Your task to perform on an android device: Open internet settings Image 0: 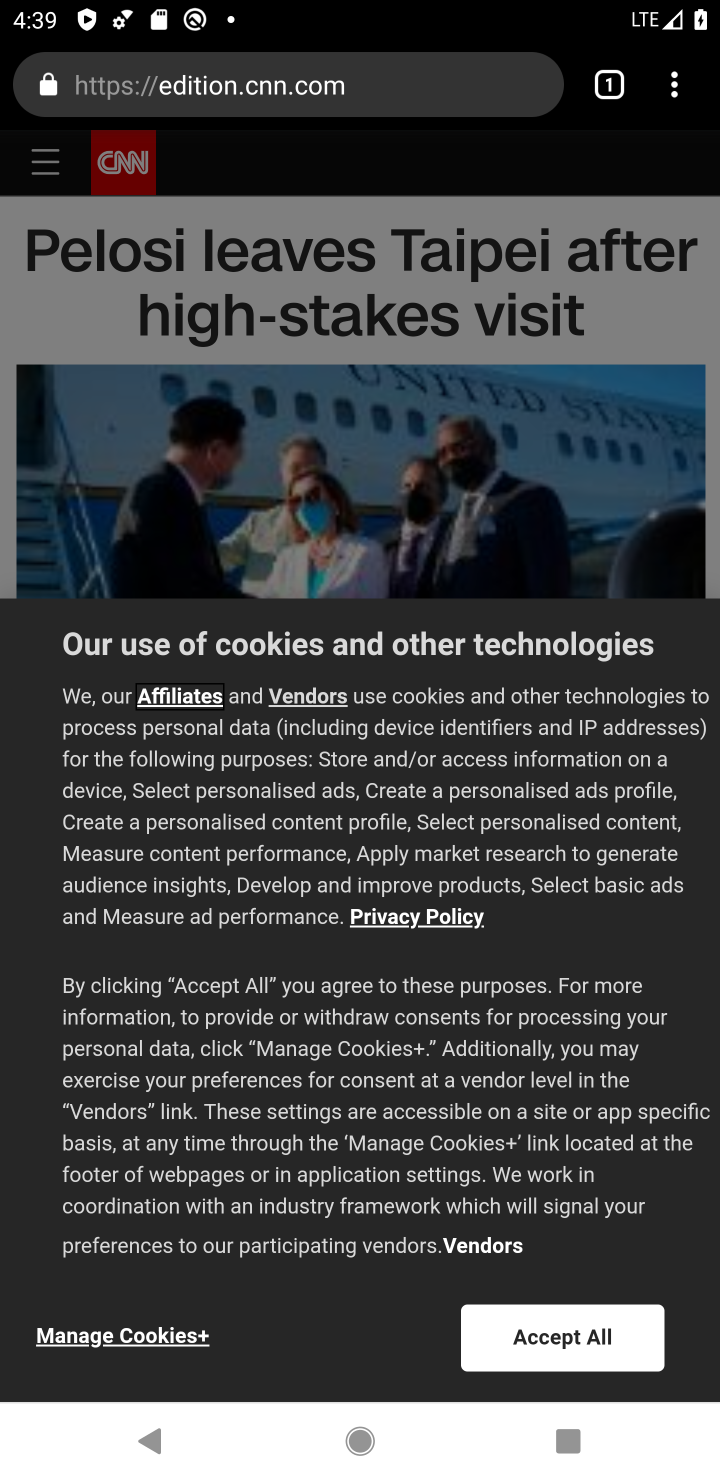
Step 0: press back button
Your task to perform on an android device: Open internet settings Image 1: 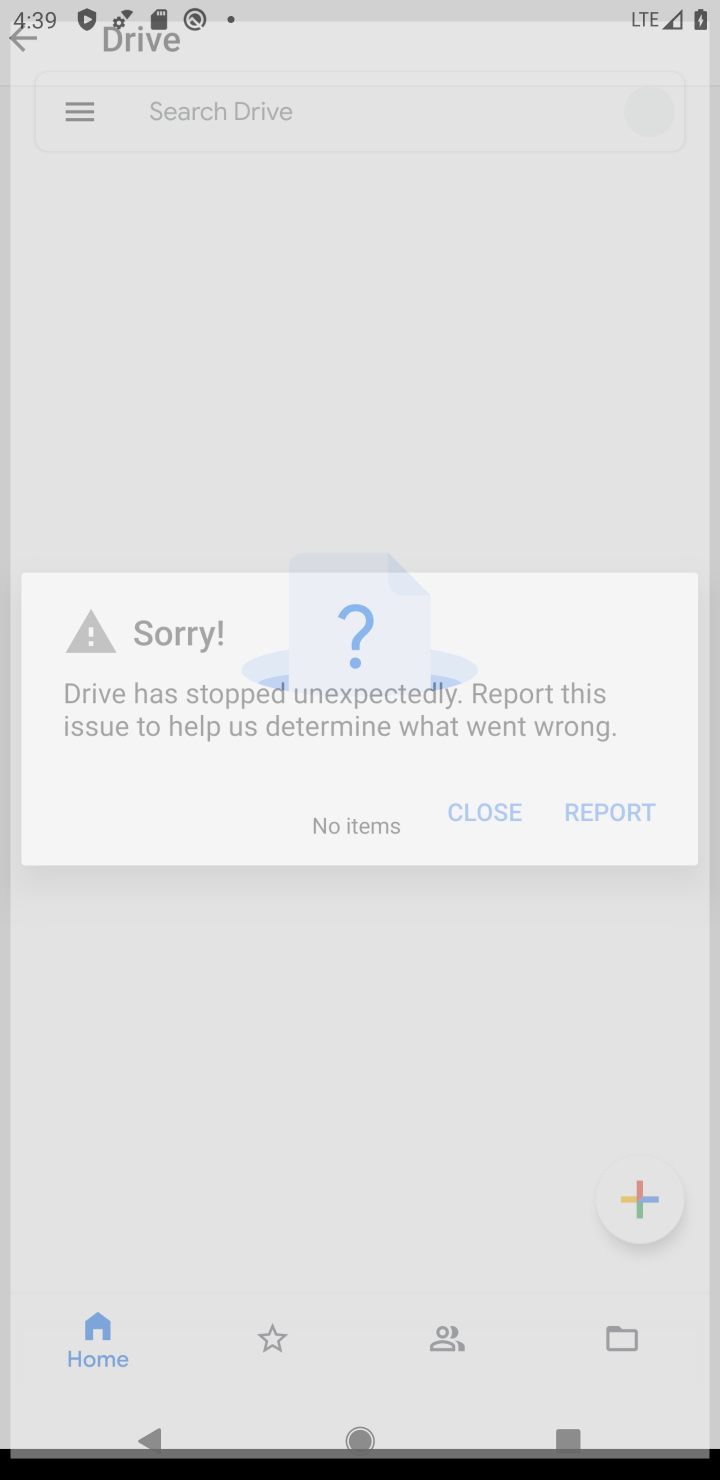
Step 1: press home button
Your task to perform on an android device: Open internet settings Image 2: 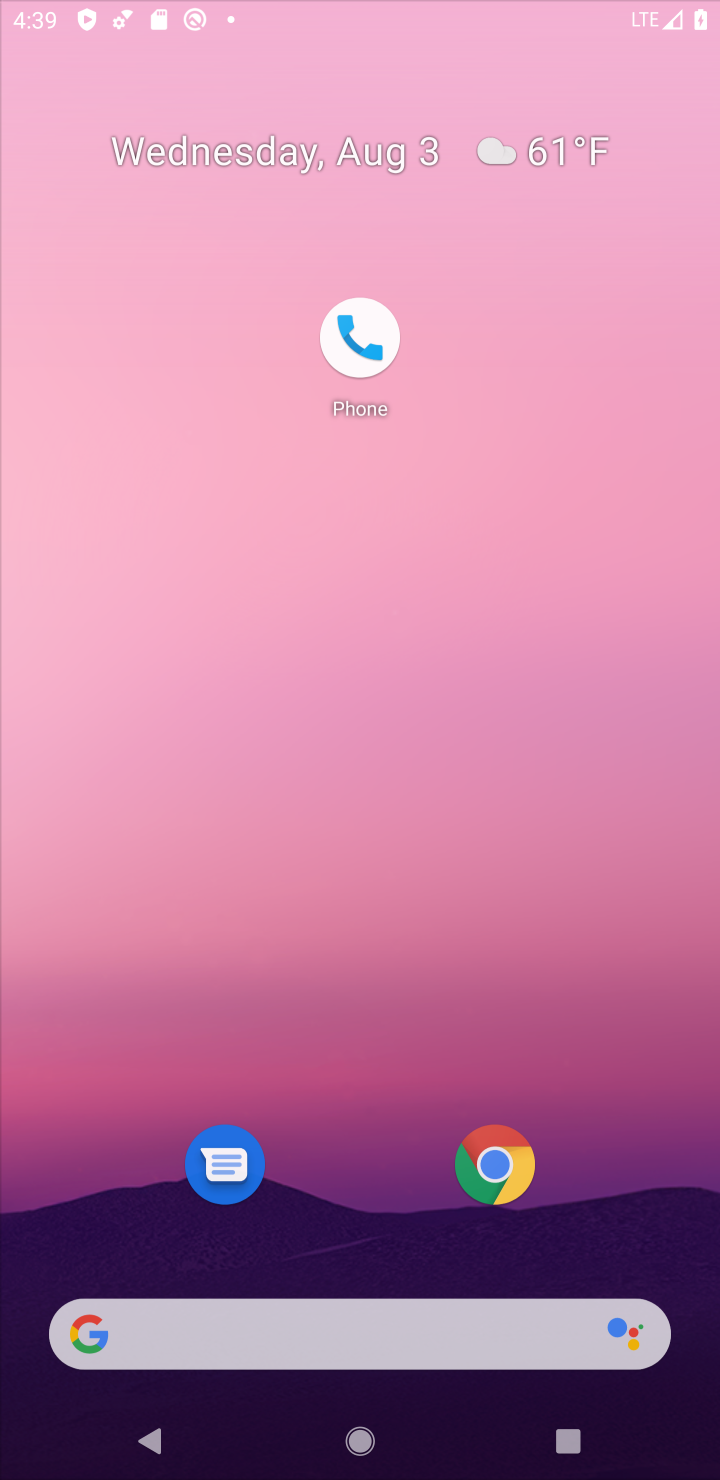
Step 2: press home button
Your task to perform on an android device: Open internet settings Image 3: 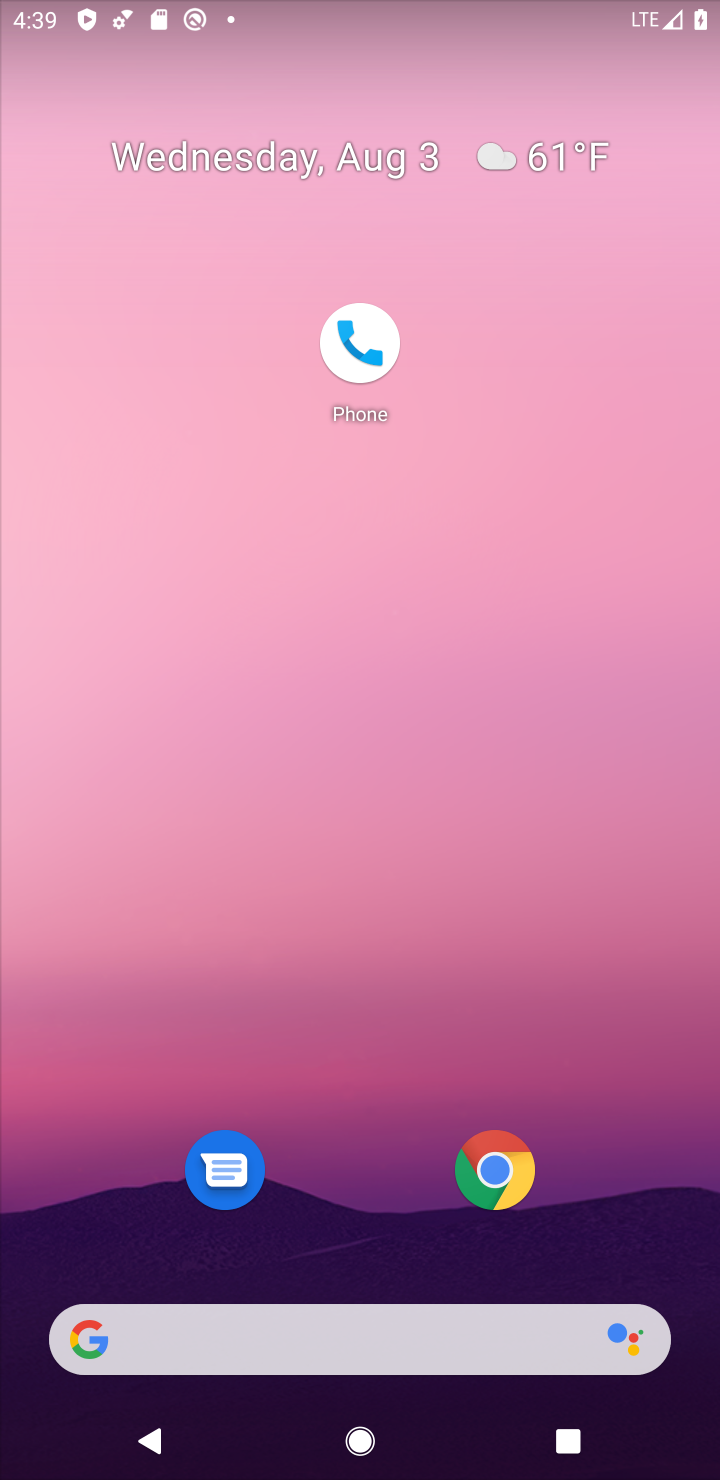
Step 3: drag from (376, 990) to (513, 13)
Your task to perform on an android device: Open internet settings Image 4: 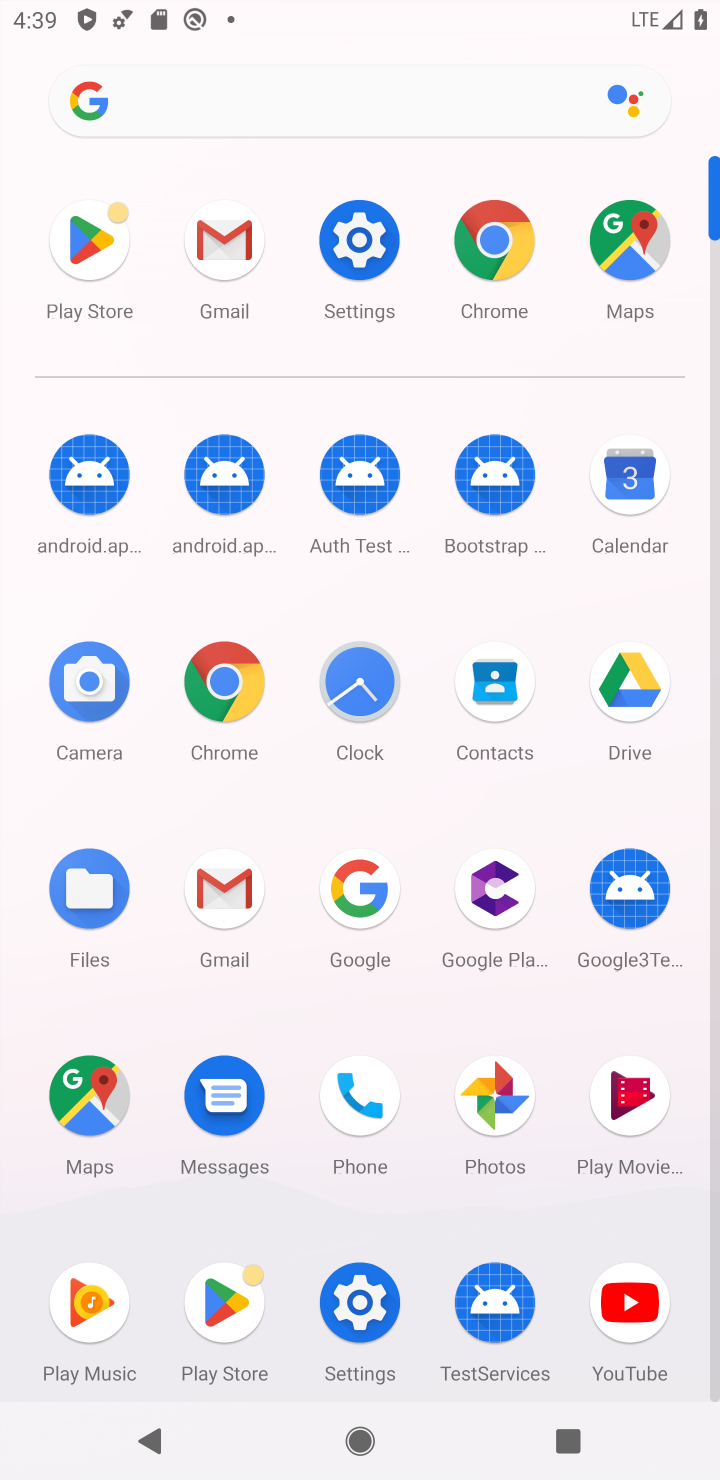
Step 4: click (353, 241)
Your task to perform on an android device: Open internet settings Image 5: 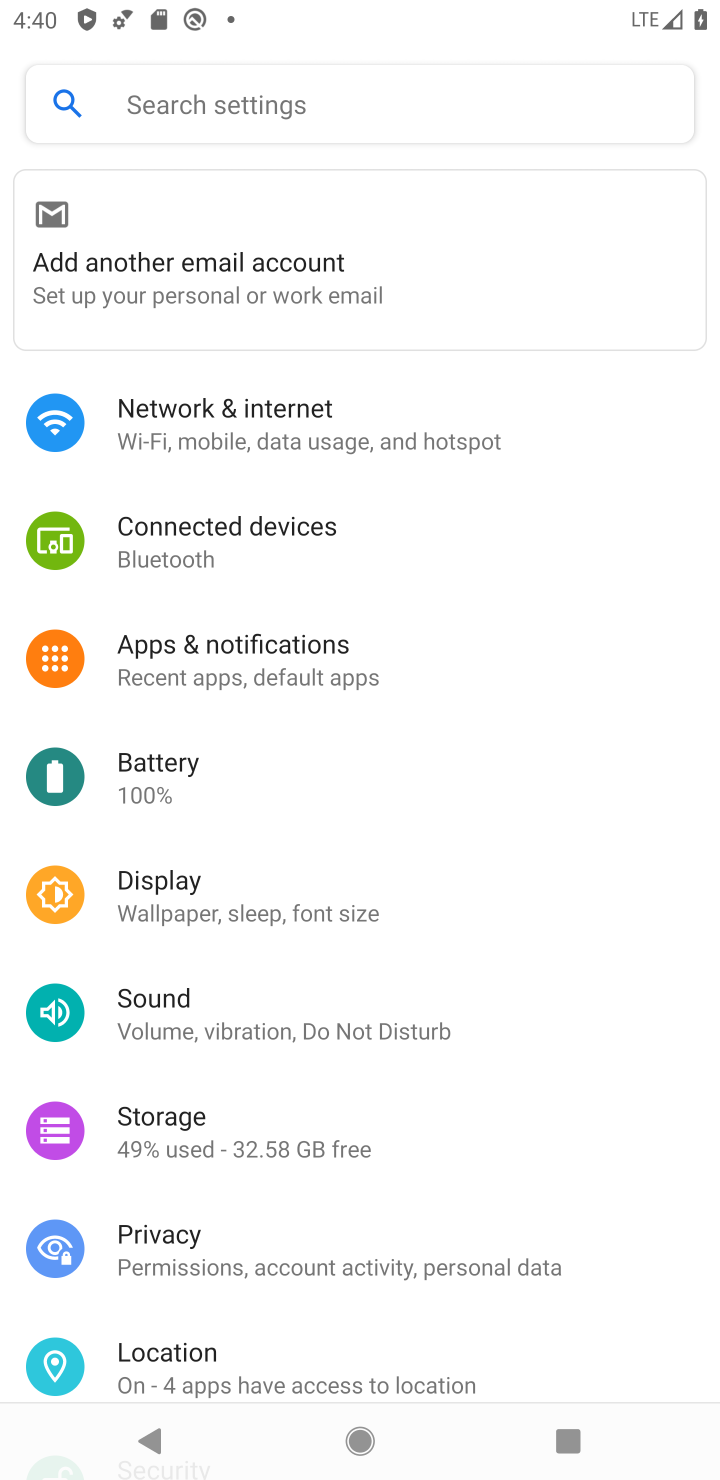
Step 5: click (227, 246)
Your task to perform on an android device: Open internet settings Image 6: 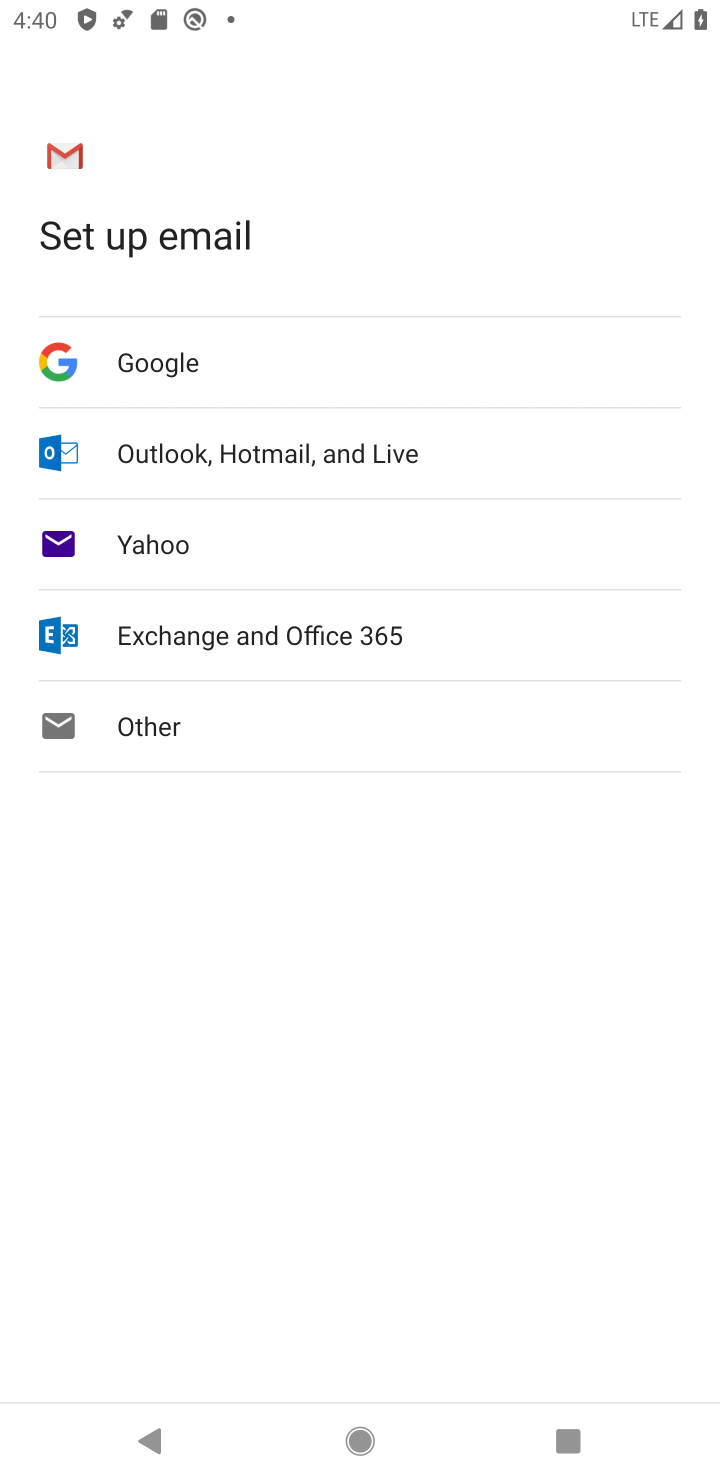
Step 6: press back button
Your task to perform on an android device: Open internet settings Image 7: 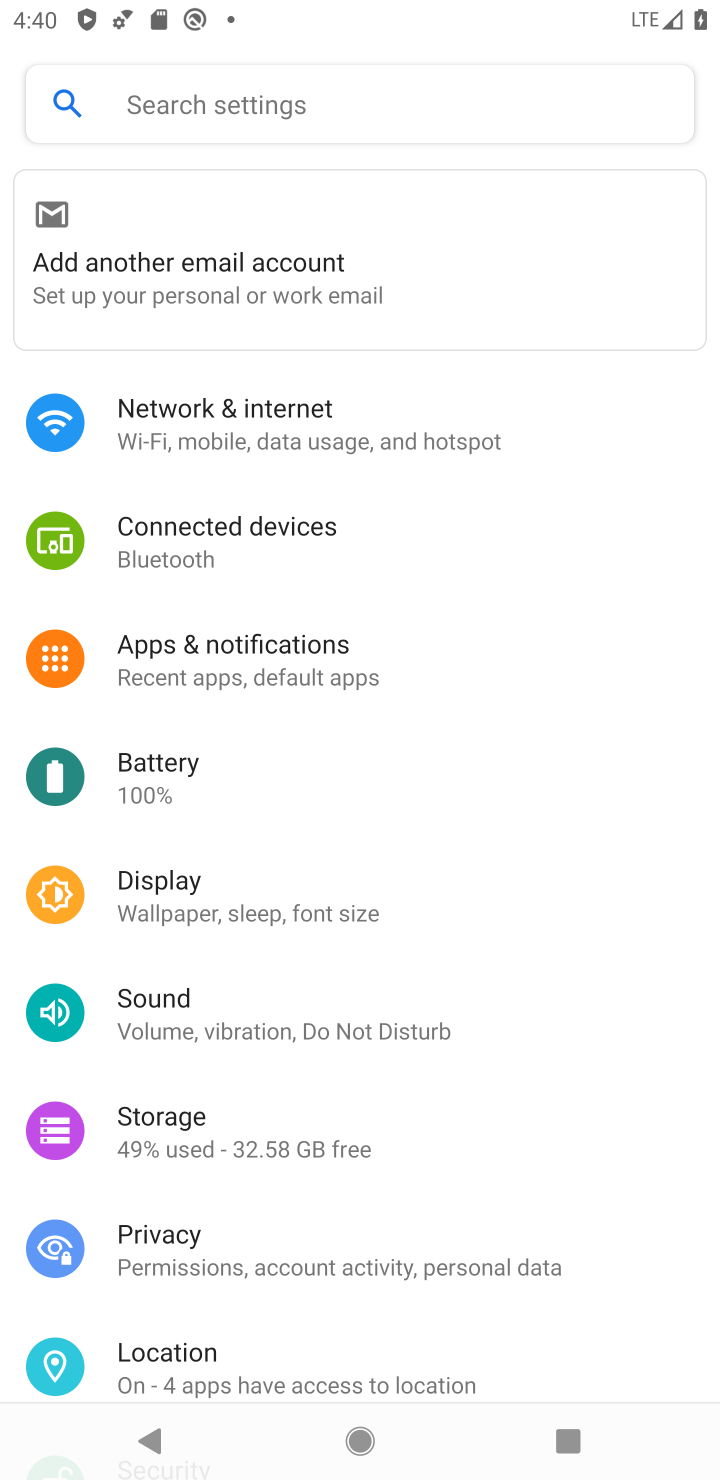
Step 7: click (260, 438)
Your task to perform on an android device: Open internet settings Image 8: 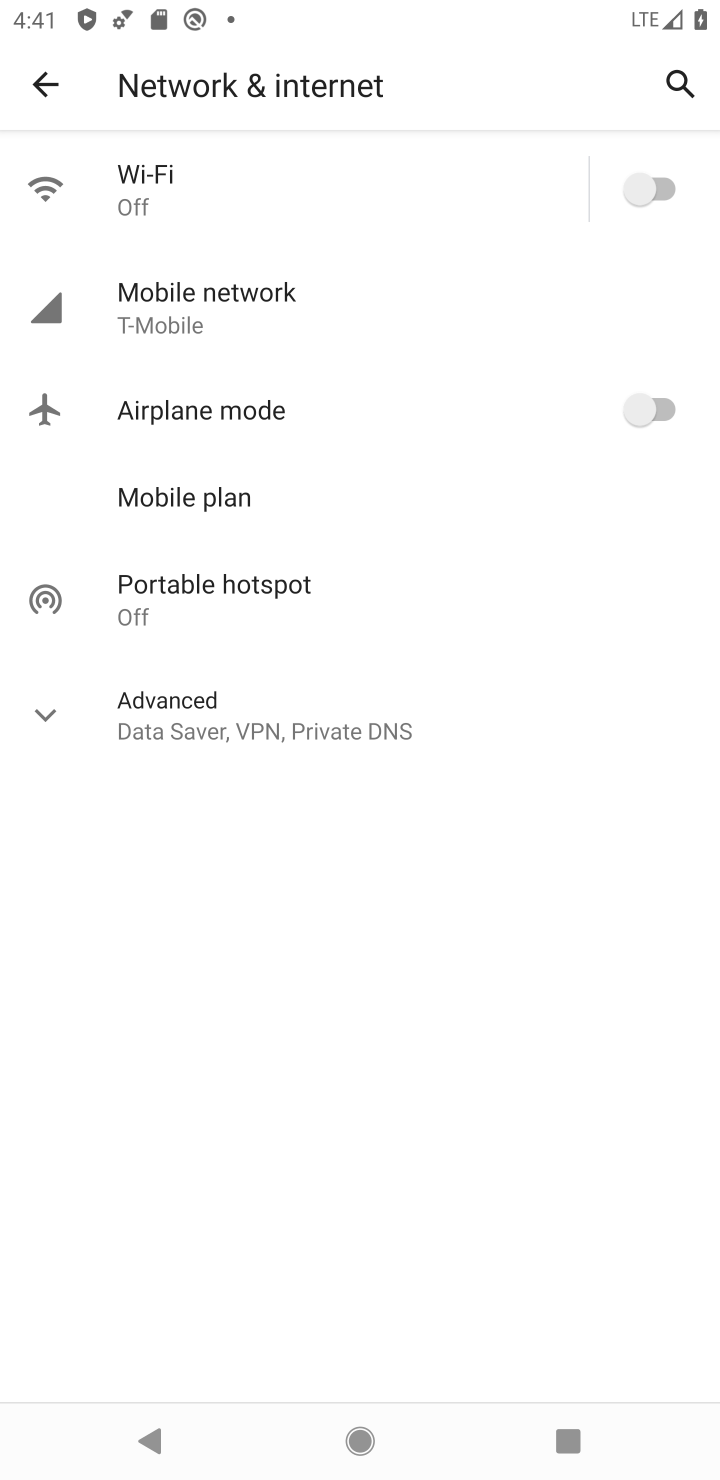
Step 8: task complete